Your task to perform on an android device: turn notification dots off Image 0: 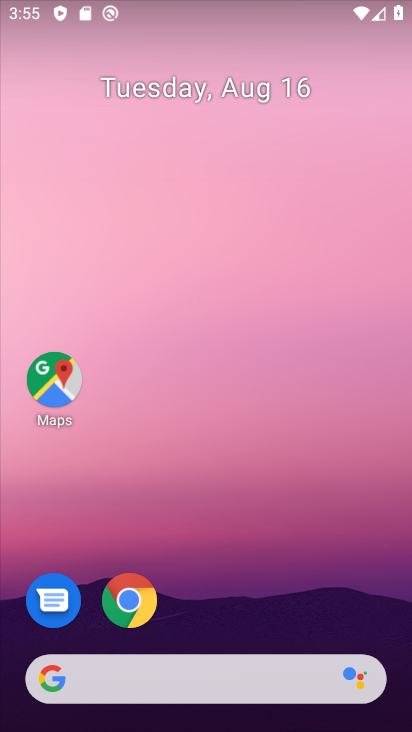
Step 0: drag from (215, 541) to (258, 196)
Your task to perform on an android device: turn notification dots off Image 1: 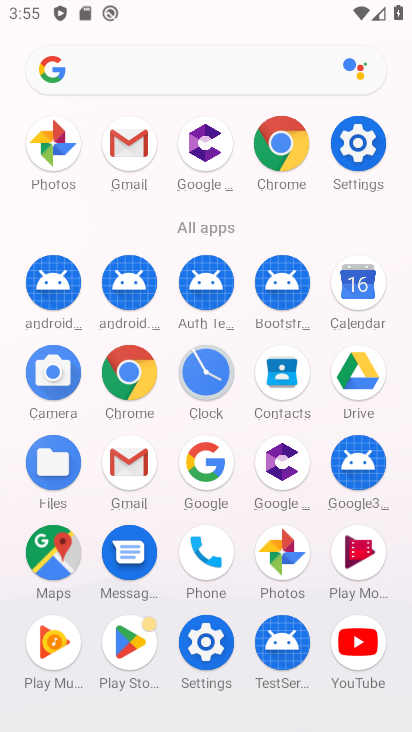
Step 1: click (213, 660)
Your task to perform on an android device: turn notification dots off Image 2: 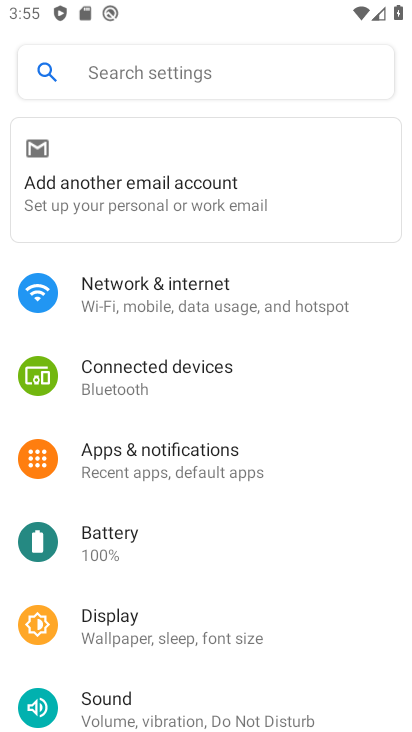
Step 2: drag from (213, 380) to (224, 311)
Your task to perform on an android device: turn notification dots off Image 3: 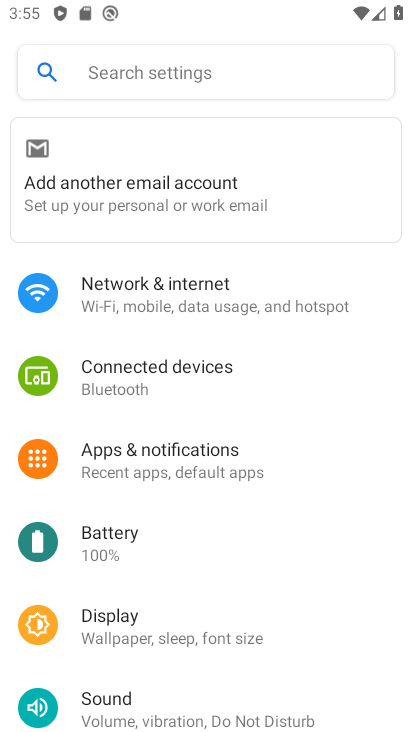
Step 3: click (163, 465)
Your task to perform on an android device: turn notification dots off Image 4: 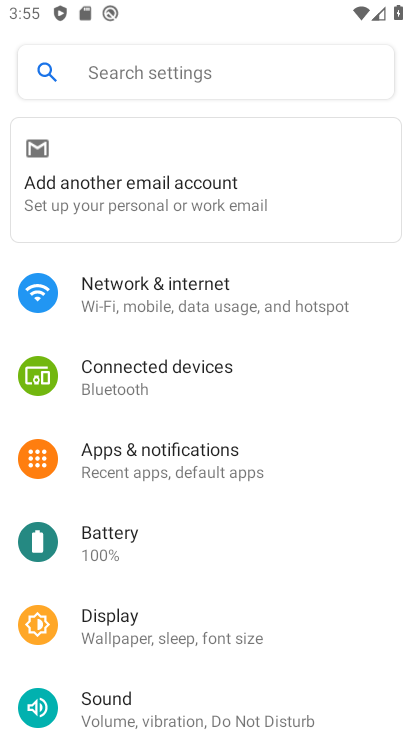
Step 4: click (189, 463)
Your task to perform on an android device: turn notification dots off Image 5: 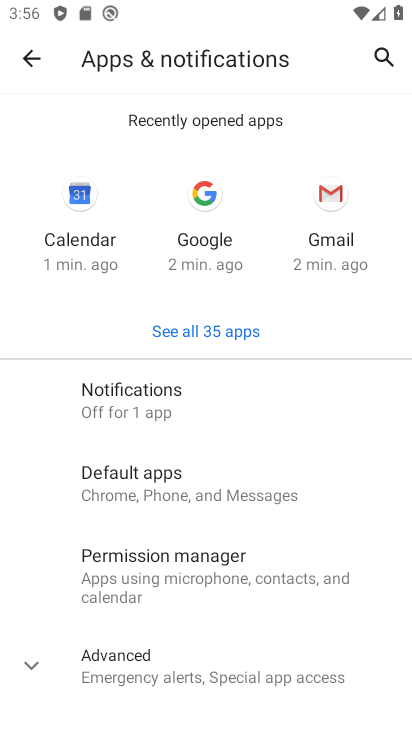
Step 5: click (178, 413)
Your task to perform on an android device: turn notification dots off Image 6: 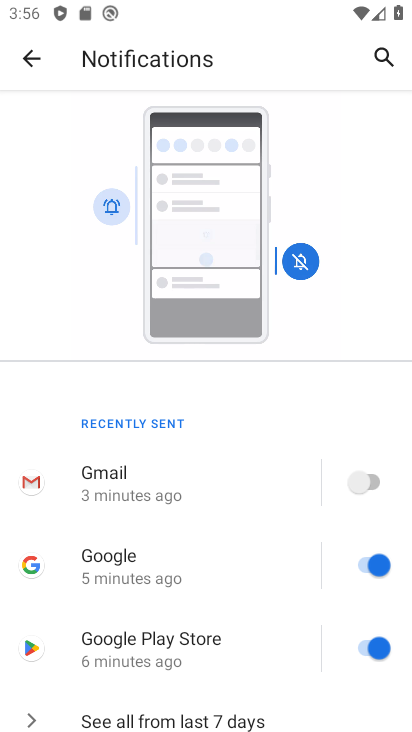
Step 6: drag from (177, 510) to (232, 83)
Your task to perform on an android device: turn notification dots off Image 7: 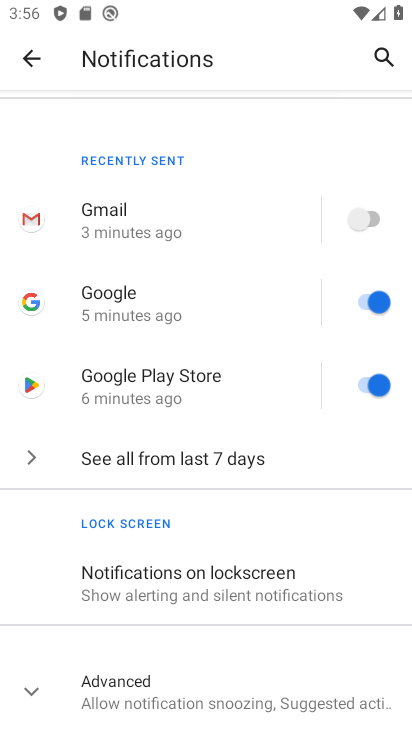
Step 7: drag from (223, 631) to (263, 341)
Your task to perform on an android device: turn notification dots off Image 8: 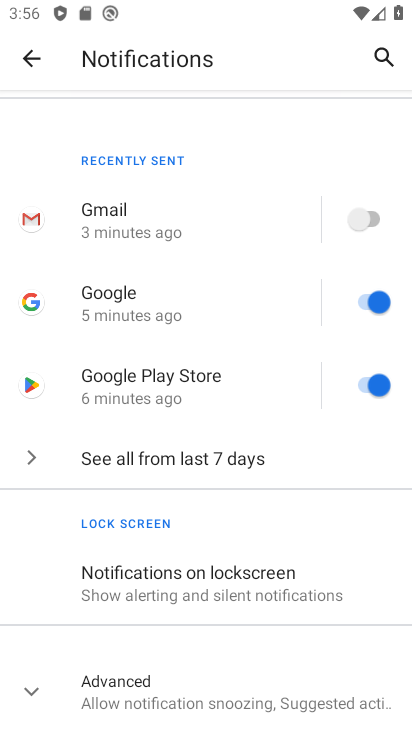
Step 8: drag from (208, 488) to (209, 420)
Your task to perform on an android device: turn notification dots off Image 9: 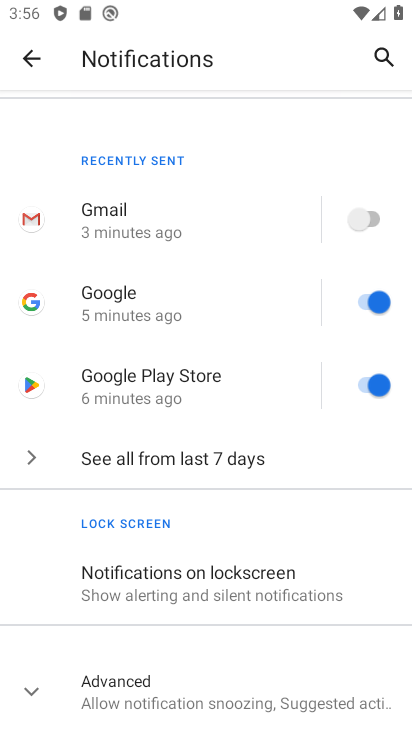
Step 9: click (101, 691)
Your task to perform on an android device: turn notification dots off Image 10: 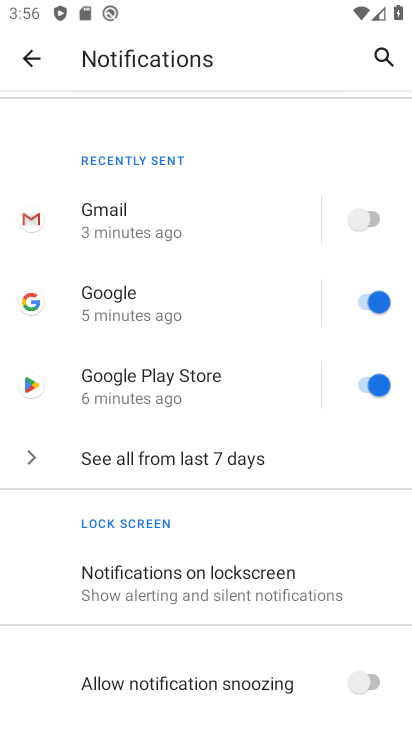
Step 10: click (28, 688)
Your task to perform on an android device: turn notification dots off Image 11: 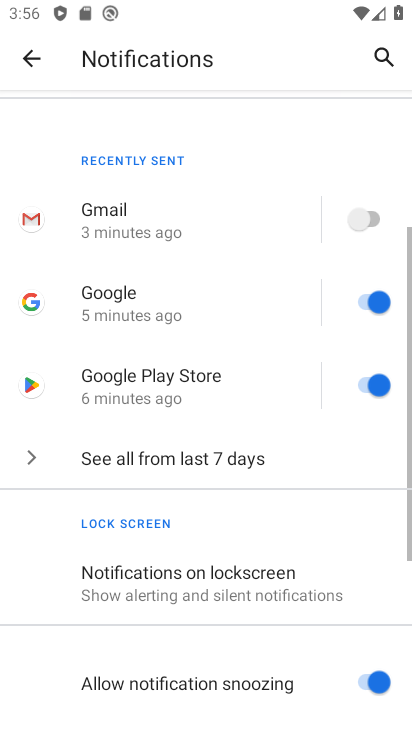
Step 11: drag from (198, 574) to (208, 334)
Your task to perform on an android device: turn notification dots off Image 12: 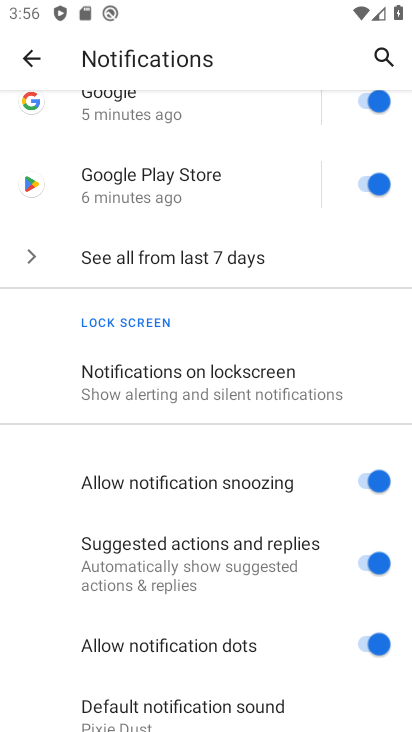
Step 12: drag from (201, 634) to (200, 306)
Your task to perform on an android device: turn notification dots off Image 13: 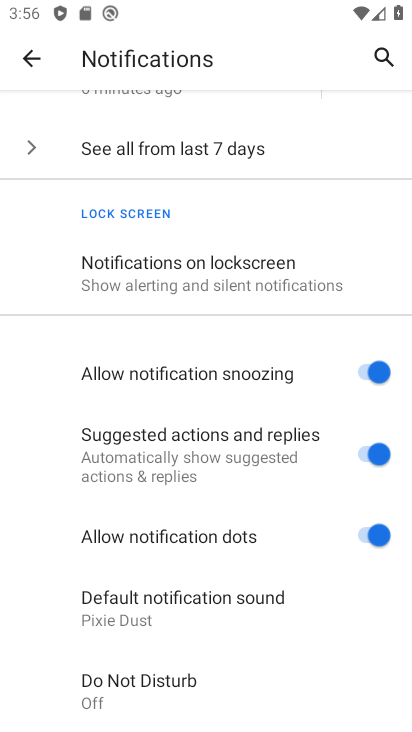
Step 13: click (346, 533)
Your task to perform on an android device: turn notification dots off Image 14: 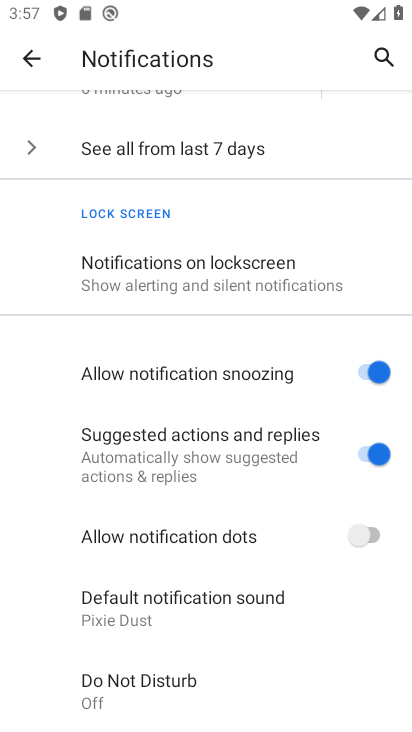
Step 14: task complete